Your task to perform on an android device: Go to eBay Image 0: 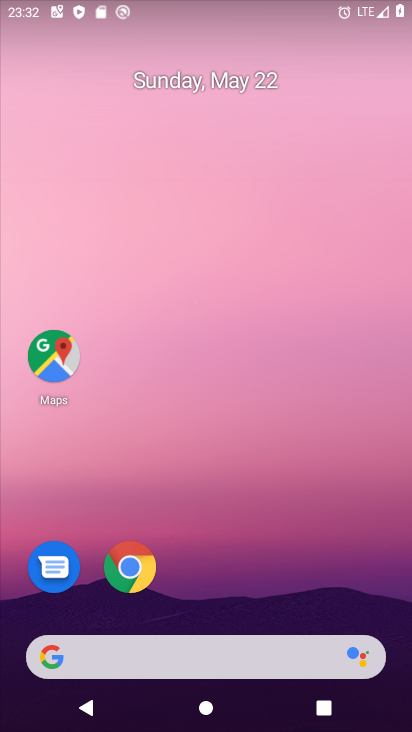
Step 0: drag from (257, 437) to (242, 0)
Your task to perform on an android device: Go to eBay Image 1: 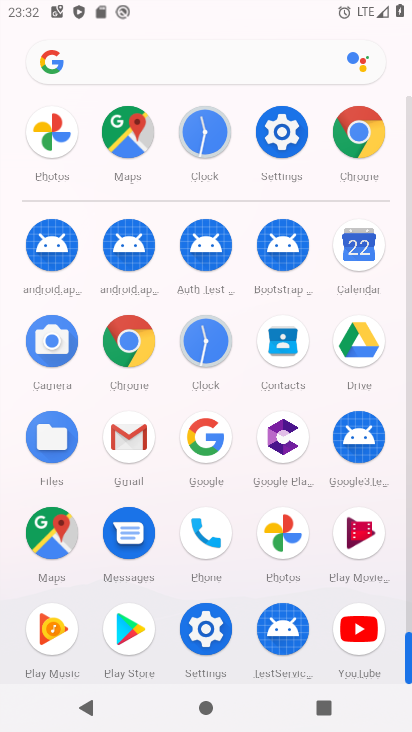
Step 1: click (131, 335)
Your task to perform on an android device: Go to eBay Image 2: 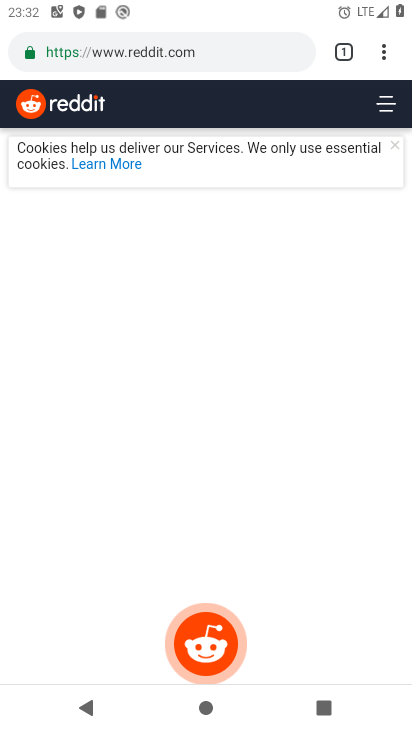
Step 2: click (160, 49)
Your task to perform on an android device: Go to eBay Image 3: 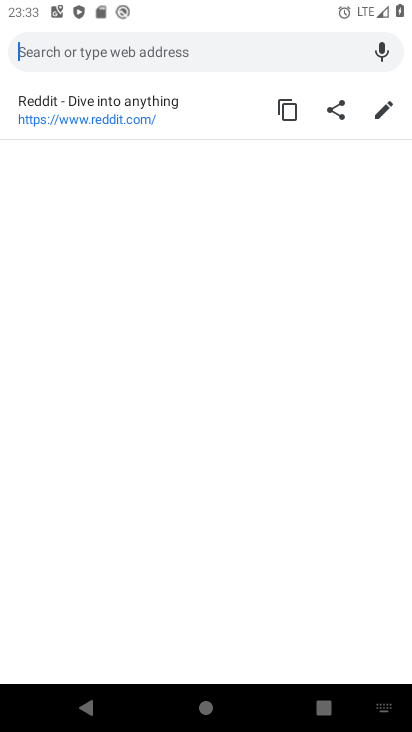
Step 3: type "eBay"
Your task to perform on an android device: Go to eBay Image 4: 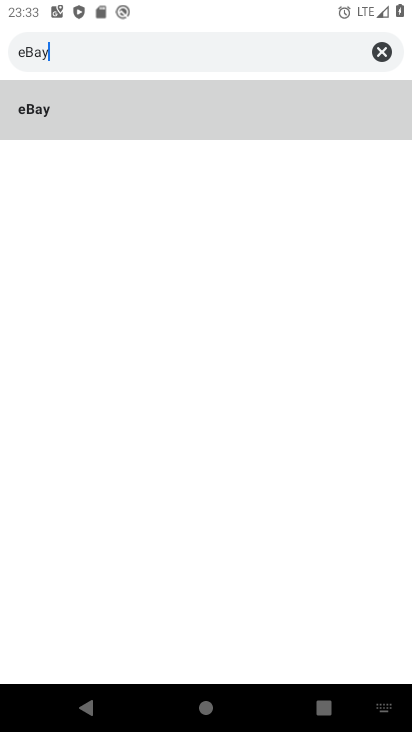
Step 4: click (61, 112)
Your task to perform on an android device: Go to eBay Image 5: 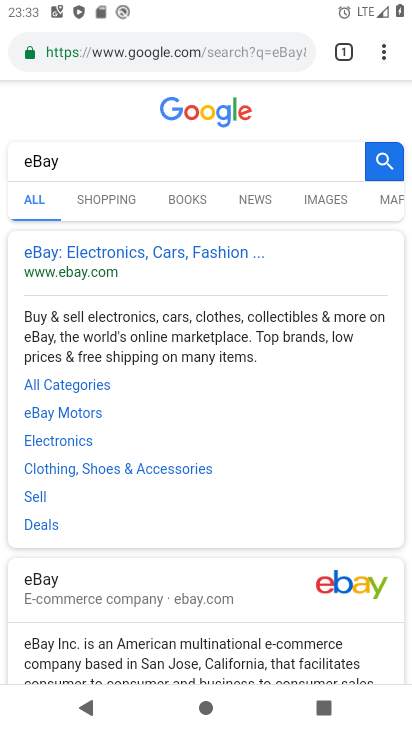
Step 5: click (49, 246)
Your task to perform on an android device: Go to eBay Image 6: 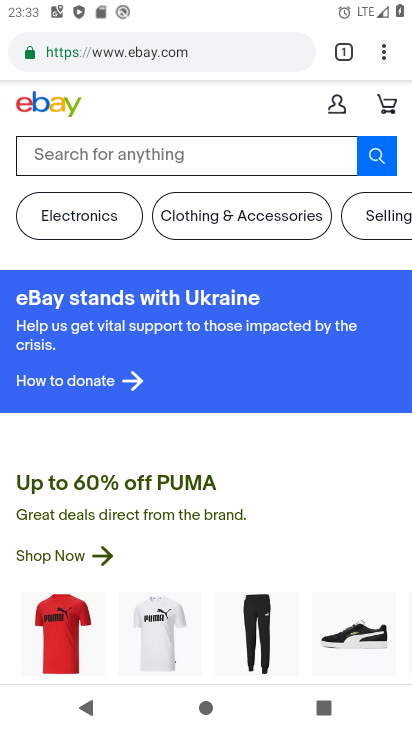
Step 6: task complete